Your task to perform on an android device: set default search engine in the chrome app Image 0: 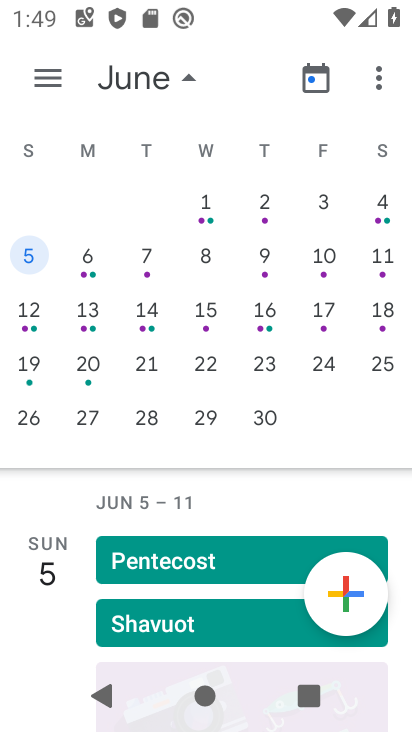
Step 0: press home button
Your task to perform on an android device: set default search engine in the chrome app Image 1: 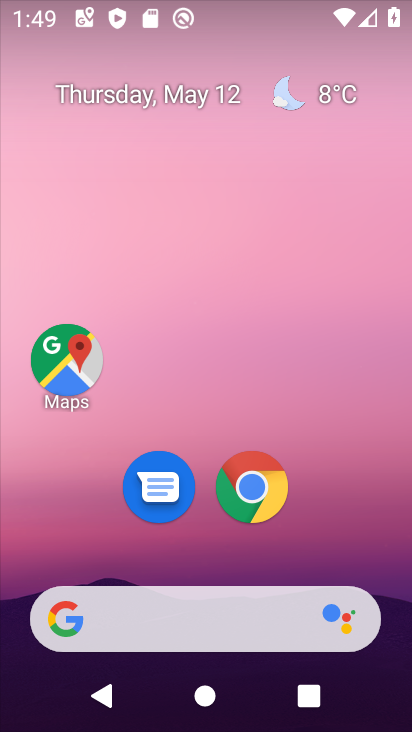
Step 1: click (237, 488)
Your task to perform on an android device: set default search engine in the chrome app Image 2: 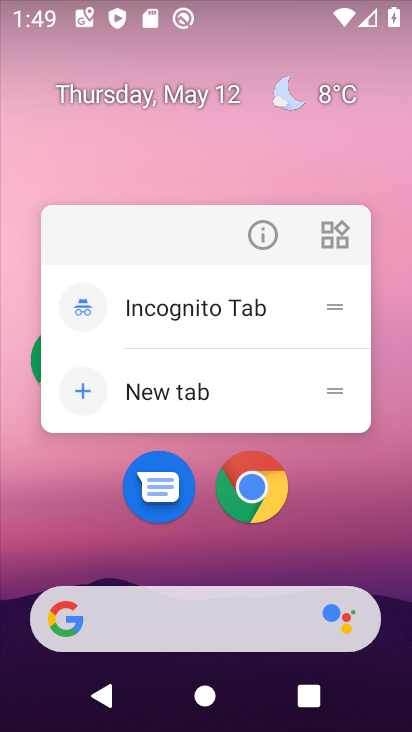
Step 2: click (237, 488)
Your task to perform on an android device: set default search engine in the chrome app Image 3: 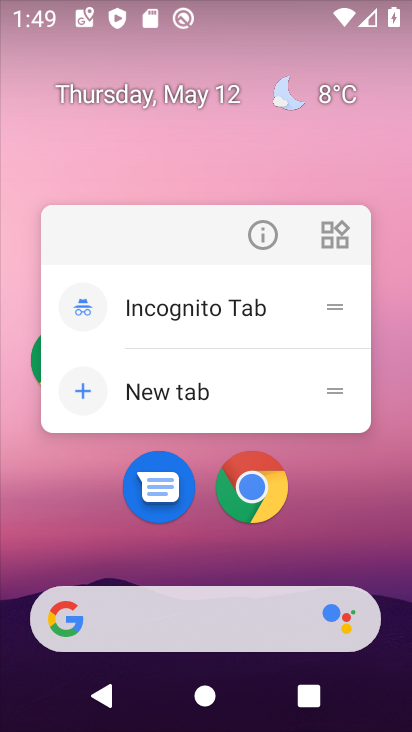
Step 3: click (253, 493)
Your task to perform on an android device: set default search engine in the chrome app Image 4: 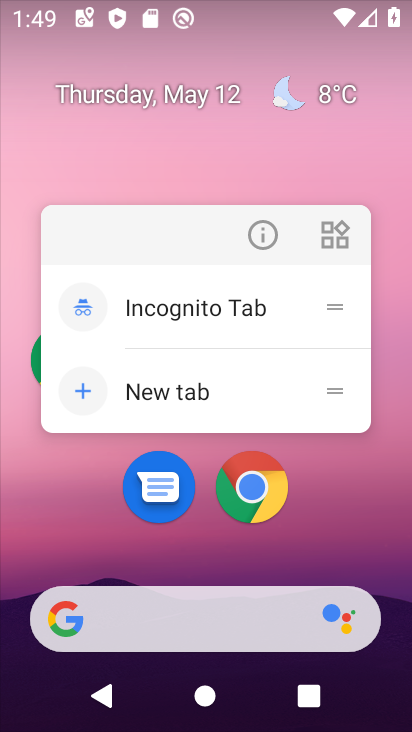
Step 4: click (250, 483)
Your task to perform on an android device: set default search engine in the chrome app Image 5: 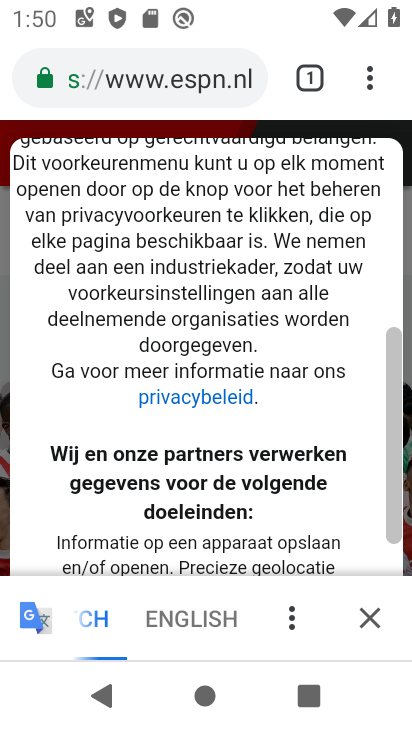
Step 5: click (371, 80)
Your task to perform on an android device: set default search engine in the chrome app Image 6: 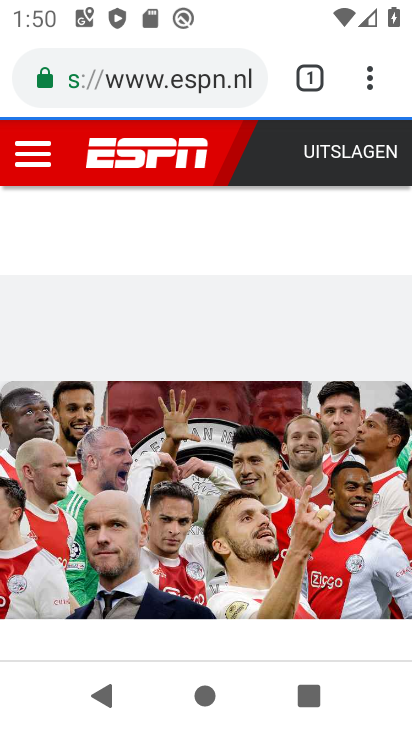
Step 6: click (375, 65)
Your task to perform on an android device: set default search engine in the chrome app Image 7: 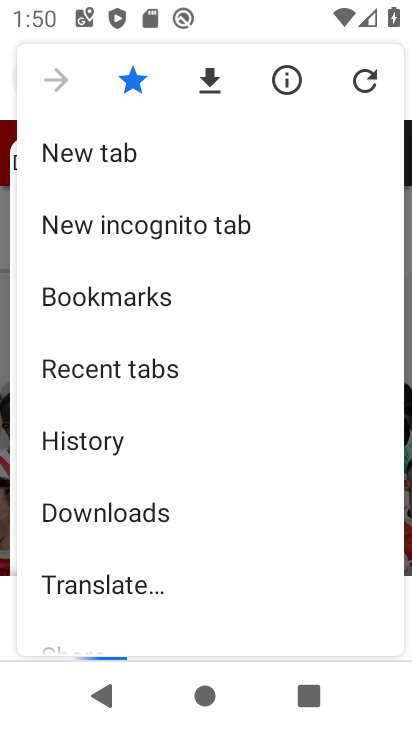
Step 7: drag from (215, 561) to (212, 173)
Your task to perform on an android device: set default search engine in the chrome app Image 8: 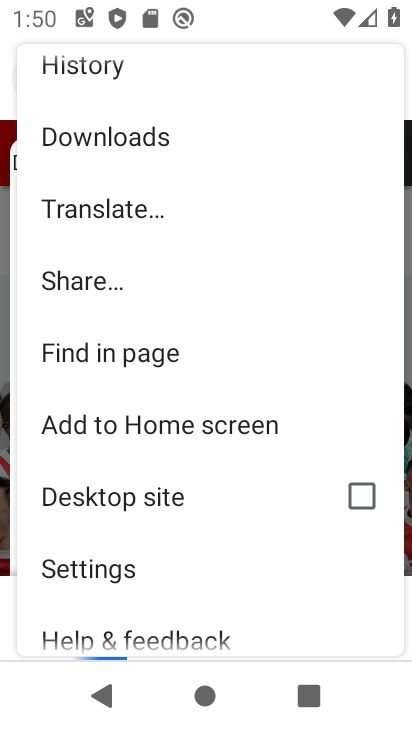
Step 8: click (194, 561)
Your task to perform on an android device: set default search engine in the chrome app Image 9: 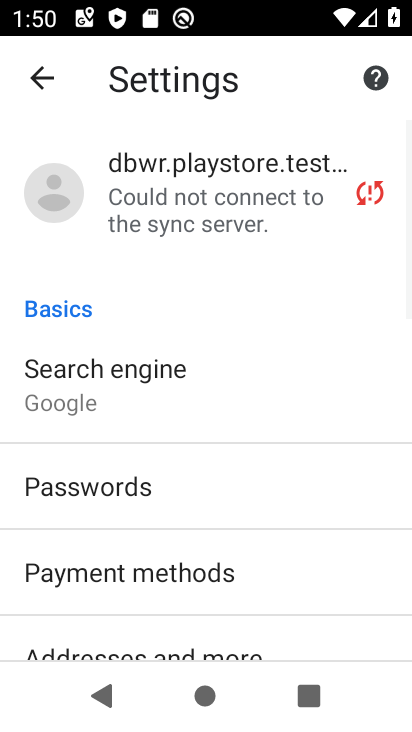
Step 9: click (148, 380)
Your task to perform on an android device: set default search engine in the chrome app Image 10: 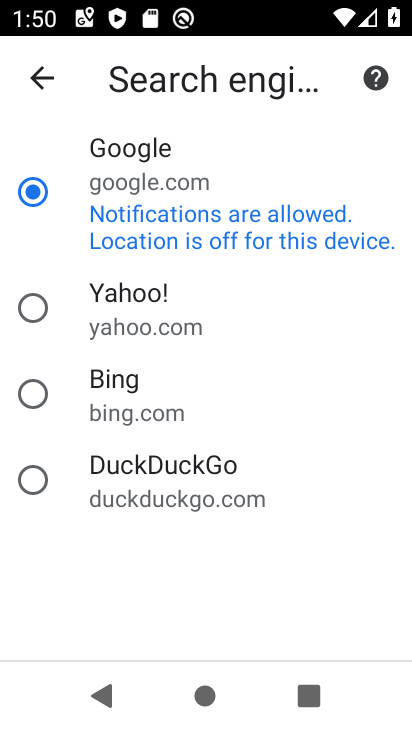
Step 10: click (167, 324)
Your task to perform on an android device: set default search engine in the chrome app Image 11: 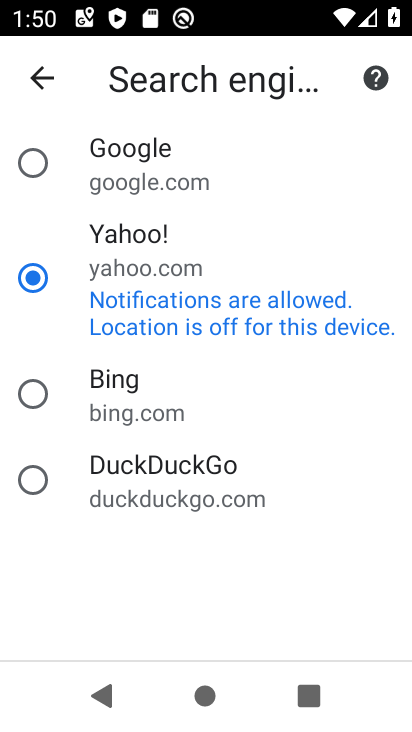
Step 11: task complete